Your task to perform on an android device: Open ESPN.com Image 0: 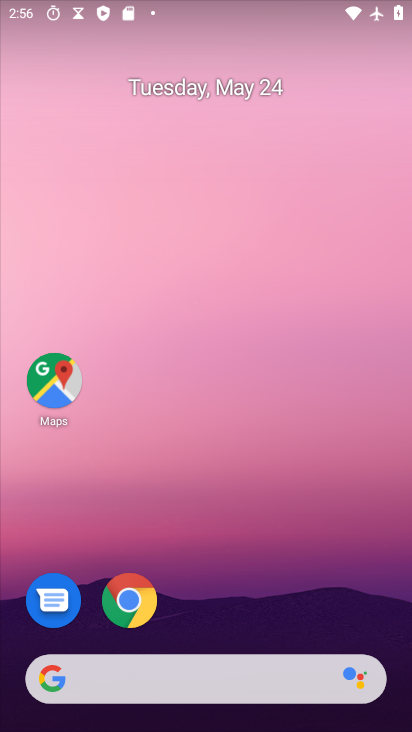
Step 0: click (134, 601)
Your task to perform on an android device: Open ESPN.com Image 1: 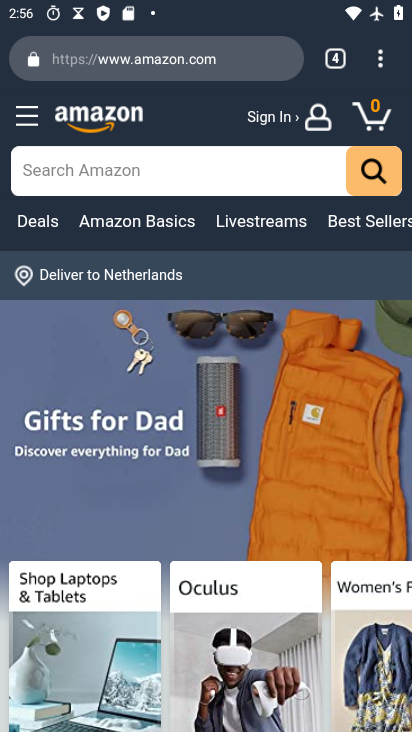
Step 1: click (328, 60)
Your task to perform on an android device: Open ESPN.com Image 2: 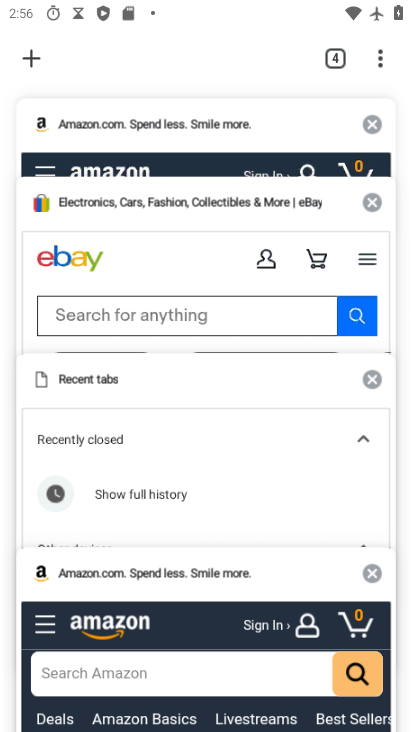
Step 2: click (25, 63)
Your task to perform on an android device: Open ESPN.com Image 3: 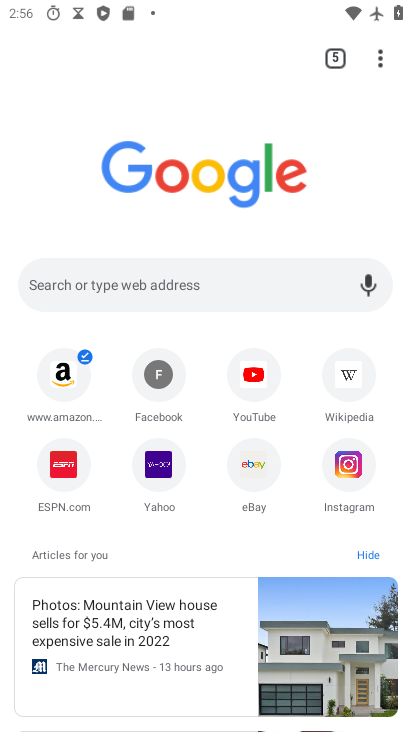
Step 3: click (60, 469)
Your task to perform on an android device: Open ESPN.com Image 4: 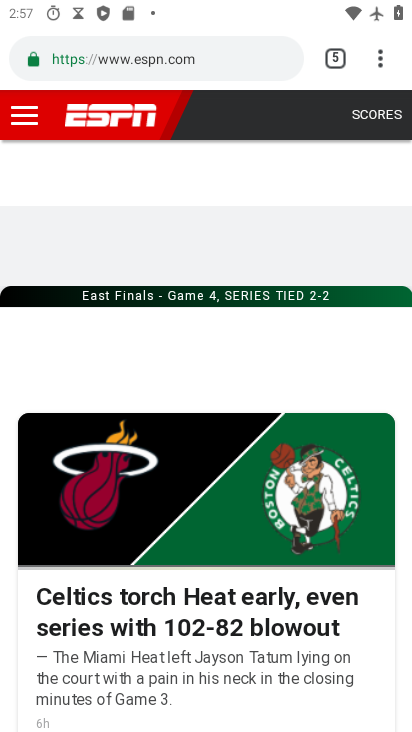
Step 4: task complete